Your task to perform on an android device: Open Google Chrome Image 0: 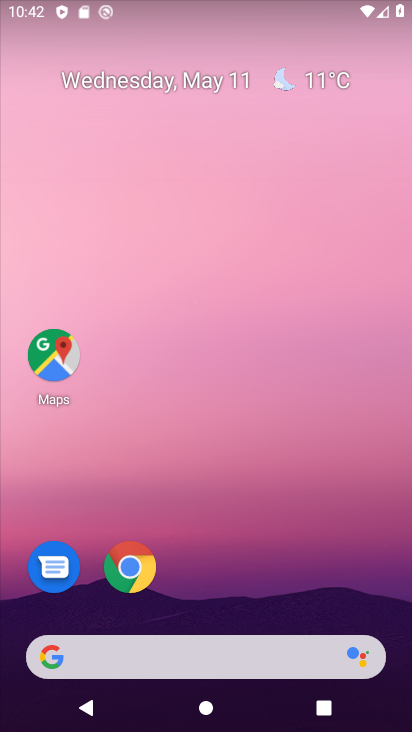
Step 0: drag from (246, 538) to (76, 5)
Your task to perform on an android device: Open Google Chrome Image 1: 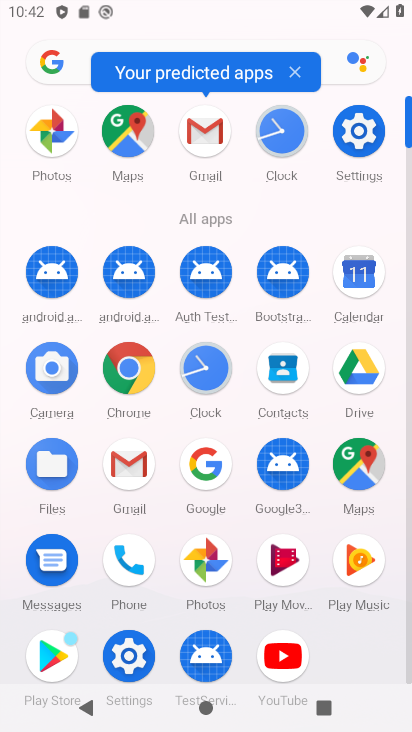
Step 1: click (118, 374)
Your task to perform on an android device: Open Google Chrome Image 2: 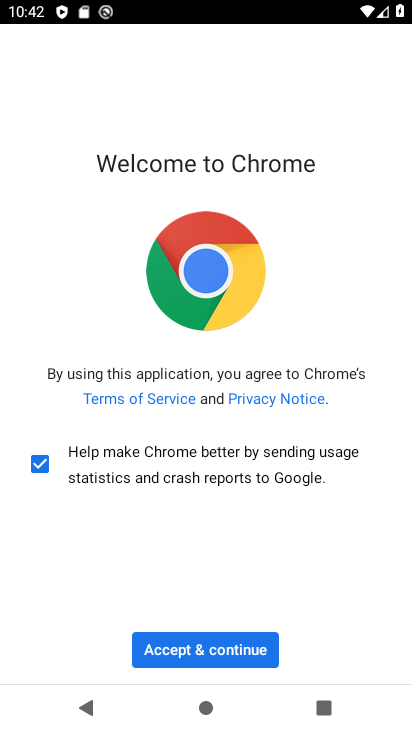
Step 2: task complete